Your task to perform on an android device: turn on translation in the chrome app Image 0: 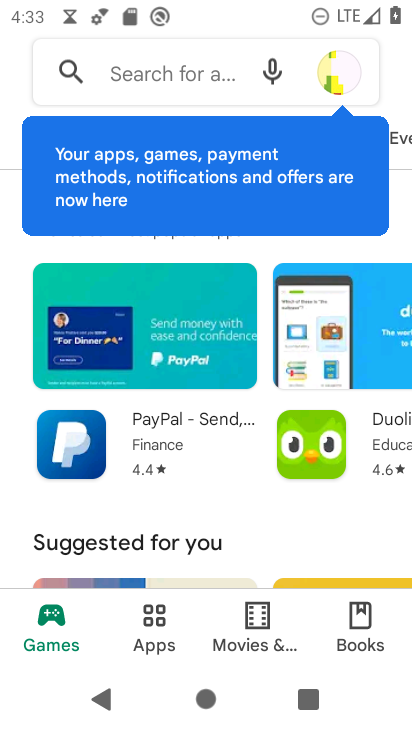
Step 0: press home button
Your task to perform on an android device: turn on translation in the chrome app Image 1: 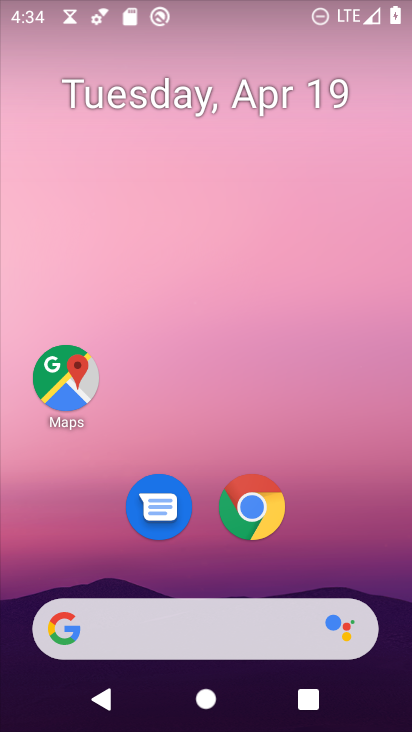
Step 1: drag from (321, 548) to (284, 63)
Your task to perform on an android device: turn on translation in the chrome app Image 2: 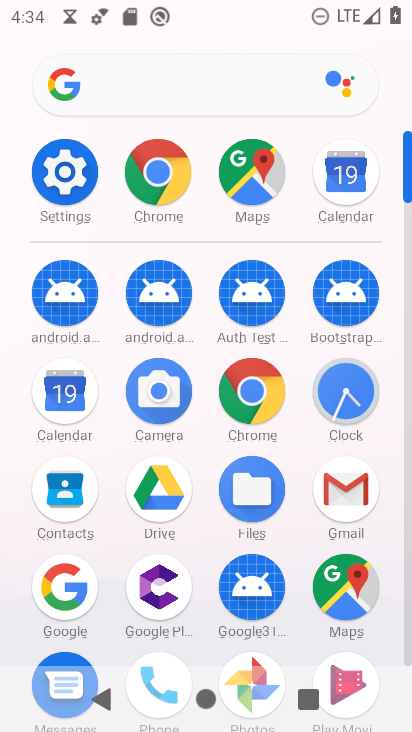
Step 2: click (166, 179)
Your task to perform on an android device: turn on translation in the chrome app Image 3: 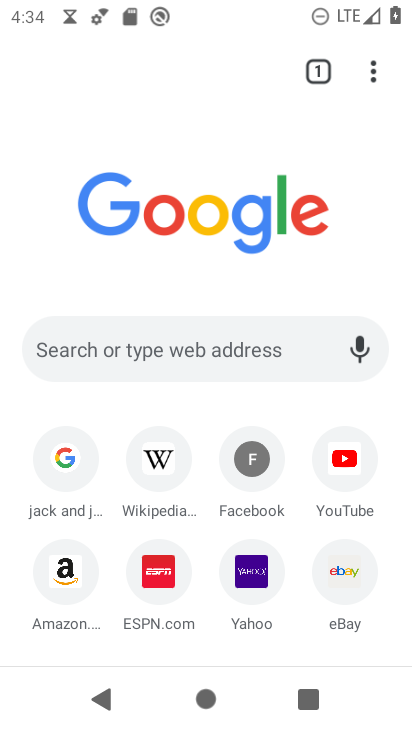
Step 3: click (382, 88)
Your task to perform on an android device: turn on translation in the chrome app Image 4: 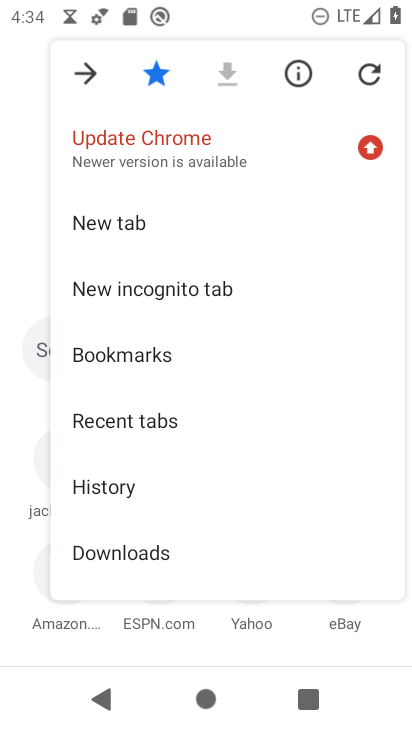
Step 4: drag from (223, 514) to (210, 250)
Your task to perform on an android device: turn on translation in the chrome app Image 5: 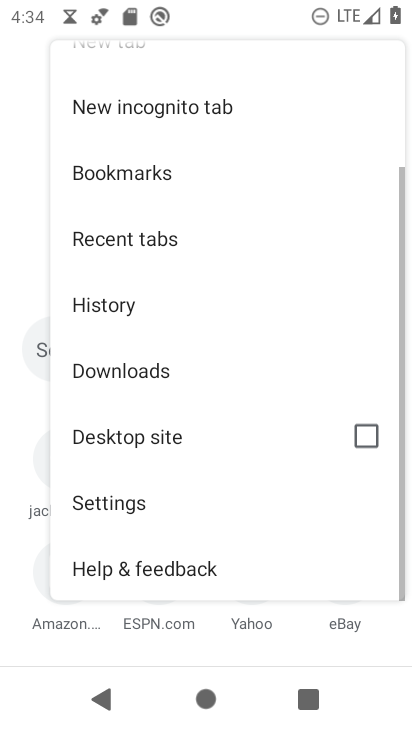
Step 5: click (189, 496)
Your task to perform on an android device: turn on translation in the chrome app Image 6: 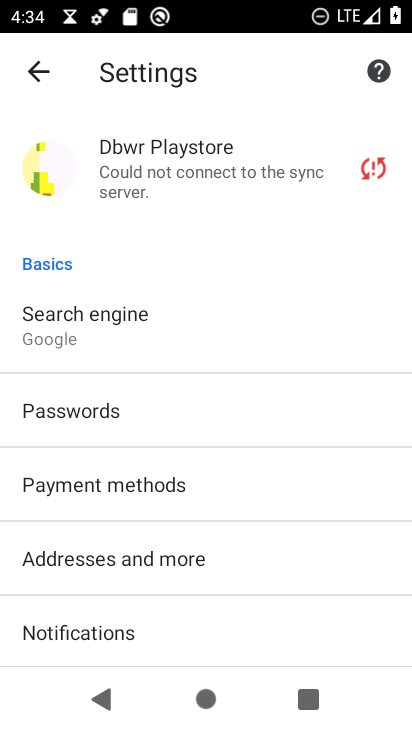
Step 6: drag from (154, 532) to (151, 393)
Your task to perform on an android device: turn on translation in the chrome app Image 7: 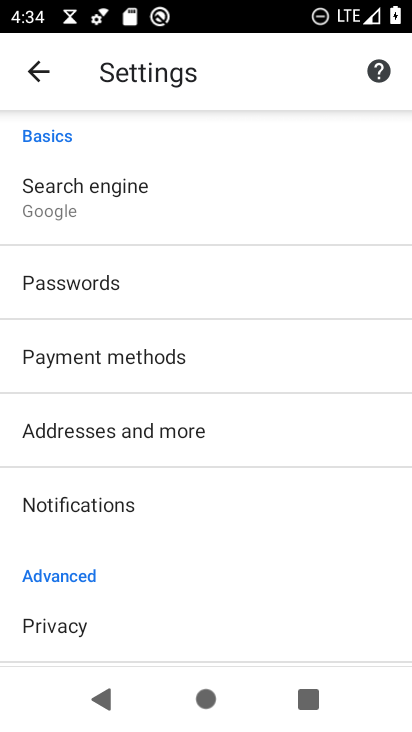
Step 7: drag from (138, 578) to (149, 415)
Your task to perform on an android device: turn on translation in the chrome app Image 8: 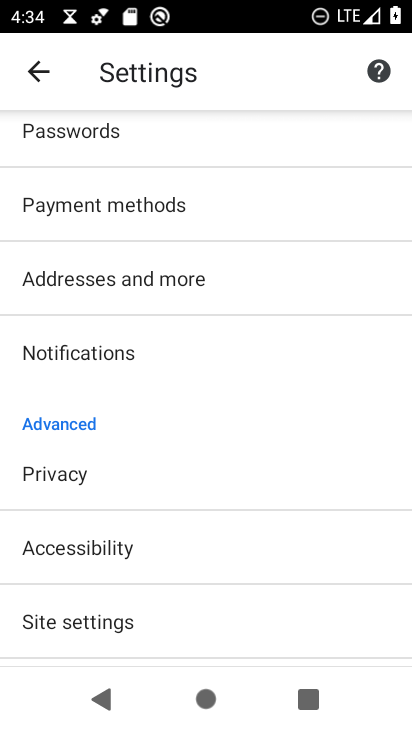
Step 8: drag from (140, 596) to (136, 461)
Your task to perform on an android device: turn on translation in the chrome app Image 9: 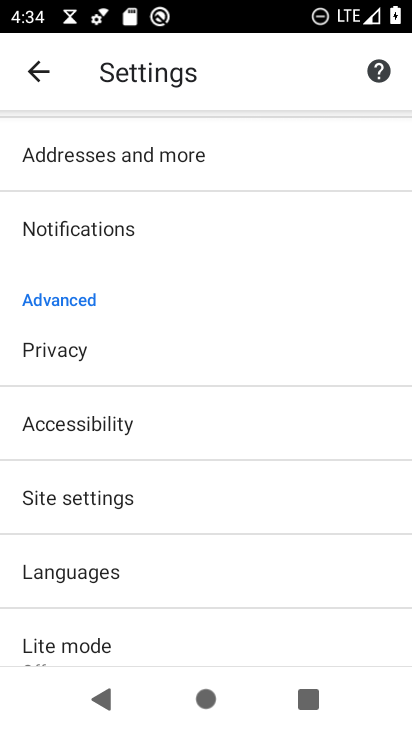
Step 9: drag from (117, 613) to (130, 446)
Your task to perform on an android device: turn on translation in the chrome app Image 10: 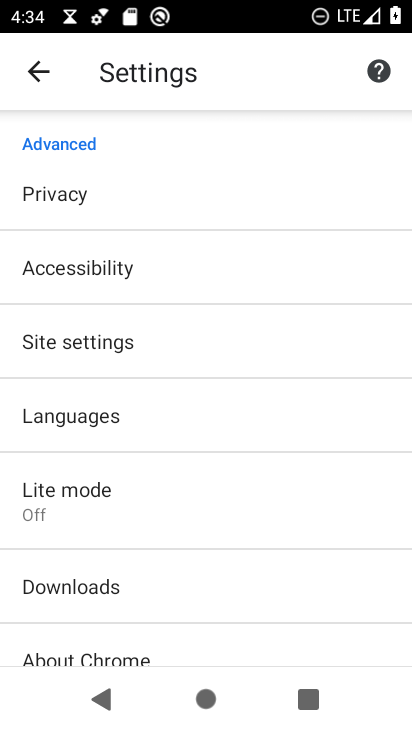
Step 10: drag from (159, 652) to (165, 517)
Your task to perform on an android device: turn on translation in the chrome app Image 11: 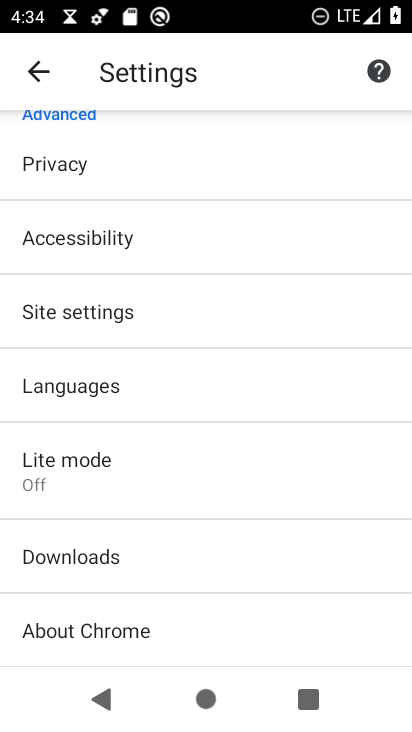
Step 11: click (183, 388)
Your task to perform on an android device: turn on translation in the chrome app Image 12: 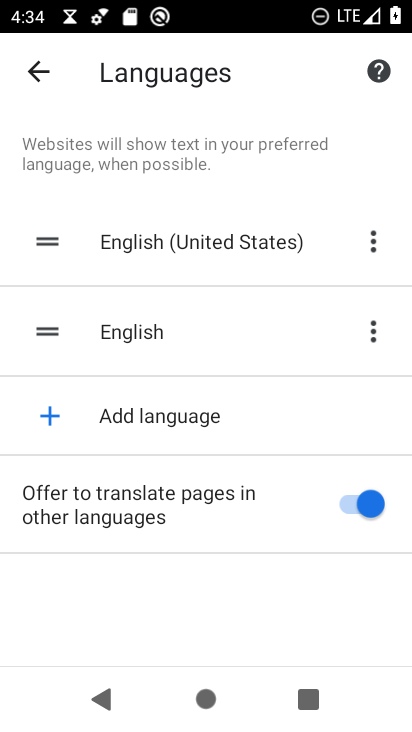
Step 12: task complete